Your task to perform on an android device: create a new album in the google photos Image 0: 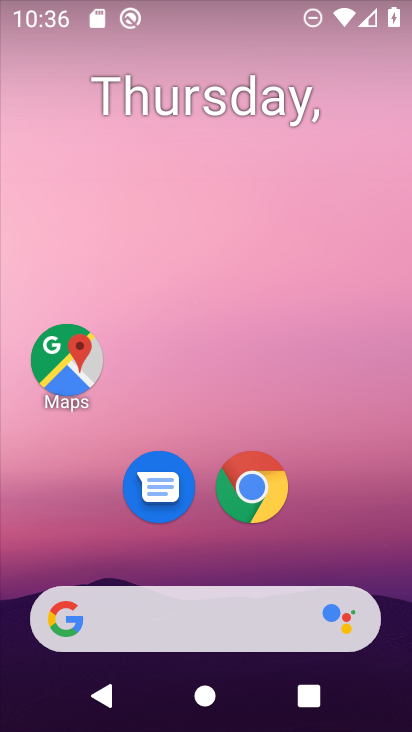
Step 0: drag from (353, 539) to (178, 84)
Your task to perform on an android device: create a new album in the google photos Image 1: 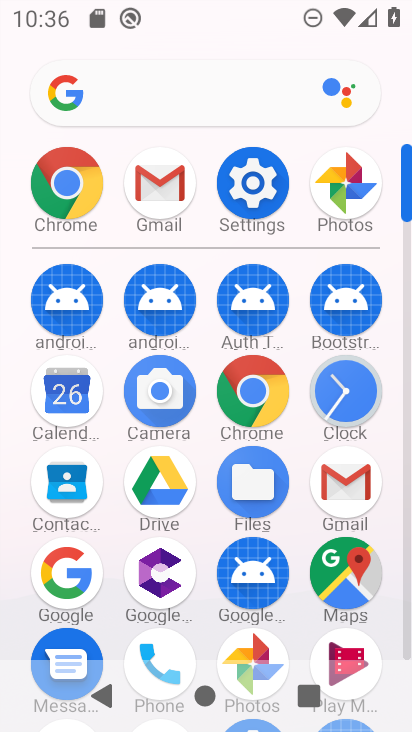
Step 1: click (335, 205)
Your task to perform on an android device: create a new album in the google photos Image 2: 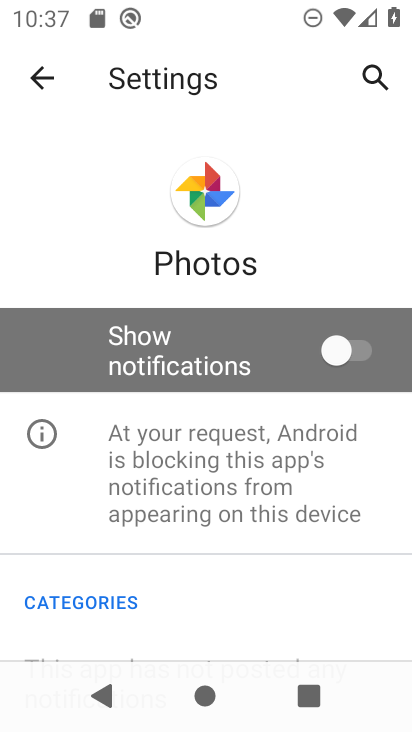
Step 2: press back button
Your task to perform on an android device: create a new album in the google photos Image 3: 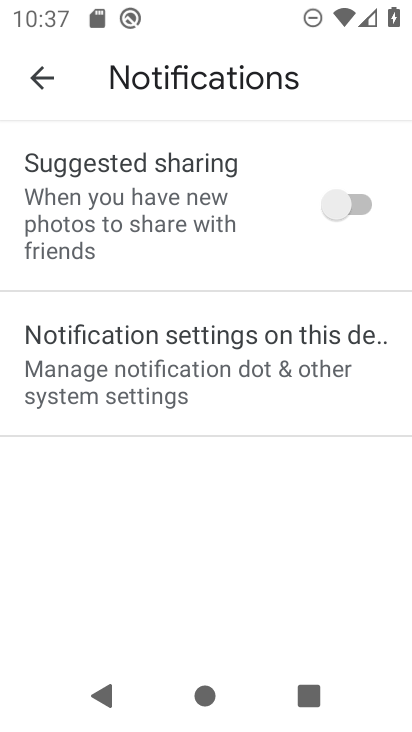
Step 3: press back button
Your task to perform on an android device: create a new album in the google photos Image 4: 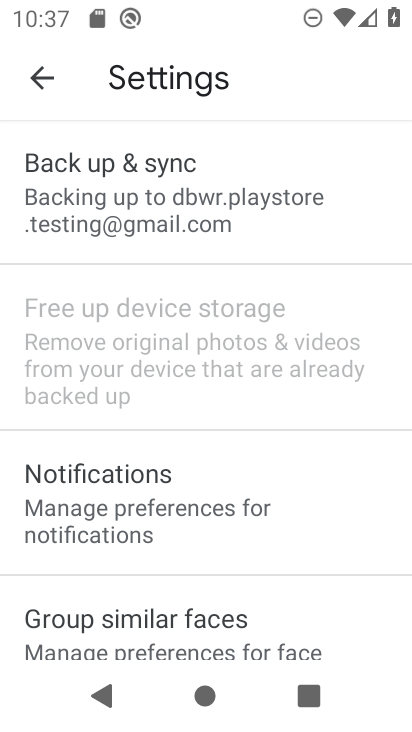
Step 4: click (40, 75)
Your task to perform on an android device: create a new album in the google photos Image 5: 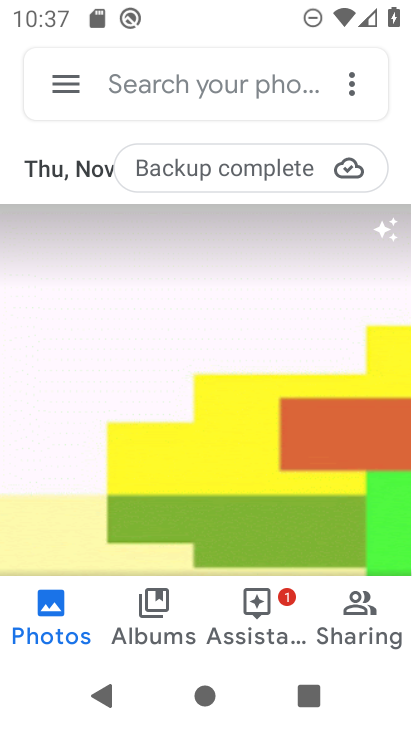
Step 5: click (175, 599)
Your task to perform on an android device: create a new album in the google photos Image 6: 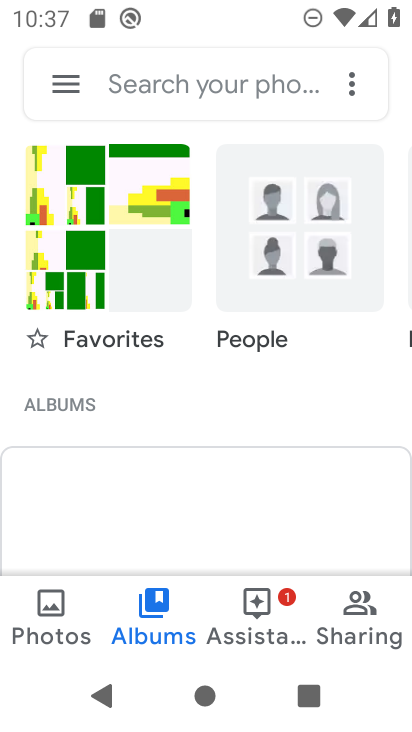
Step 6: drag from (212, 531) to (166, 255)
Your task to perform on an android device: create a new album in the google photos Image 7: 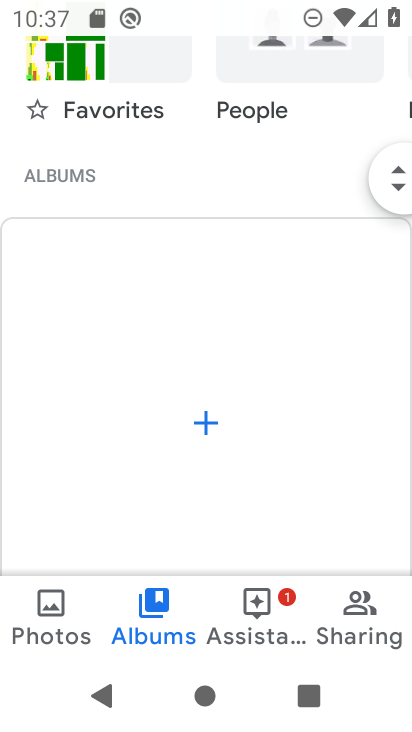
Step 7: click (206, 423)
Your task to perform on an android device: create a new album in the google photos Image 8: 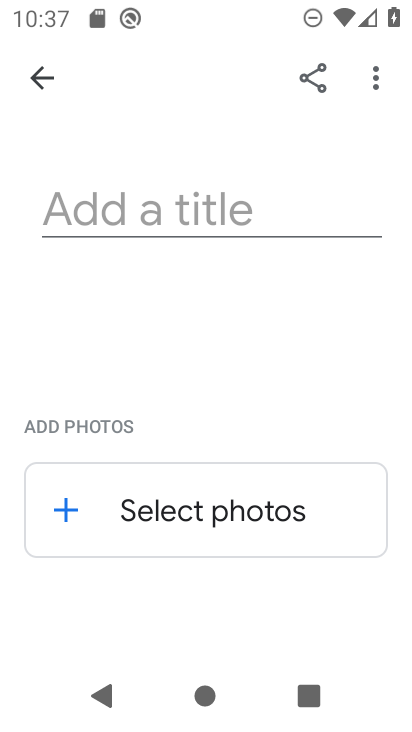
Step 8: click (199, 500)
Your task to perform on an android device: create a new album in the google photos Image 9: 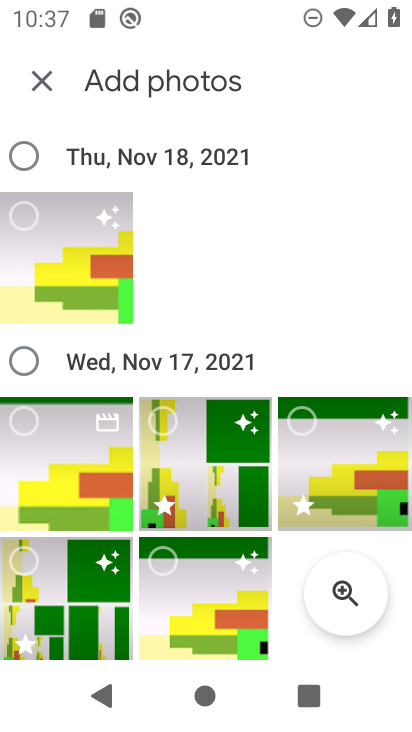
Step 9: click (39, 364)
Your task to perform on an android device: create a new album in the google photos Image 10: 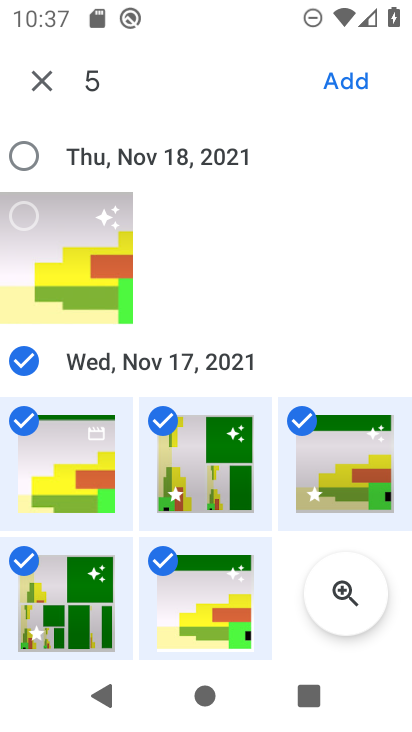
Step 10: click (347, 81)
Your task to perform on an android device: create a new album in the google photos Image 11: 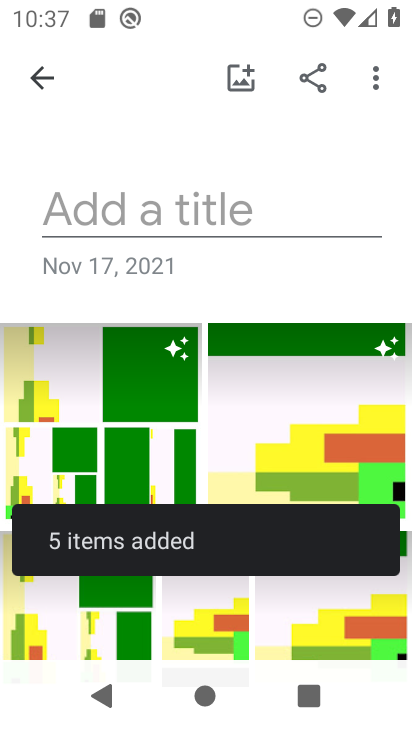
Step 11: click (228, 215)
Your task to perform on an android device: create a new album in the google photos Image 12: 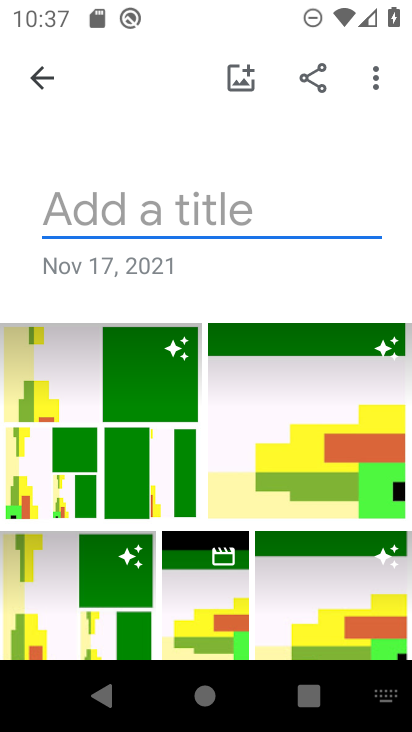
Step 12: type "gdg"
Your task to perform on an android device: create a new album in the google photos Image 13: 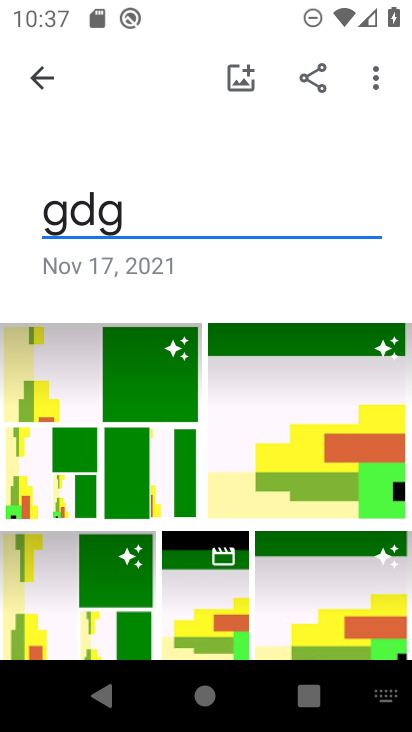
Step 13: click (380, 79)
Your task to perform on an android device: create a new album in the google photos Image 14: 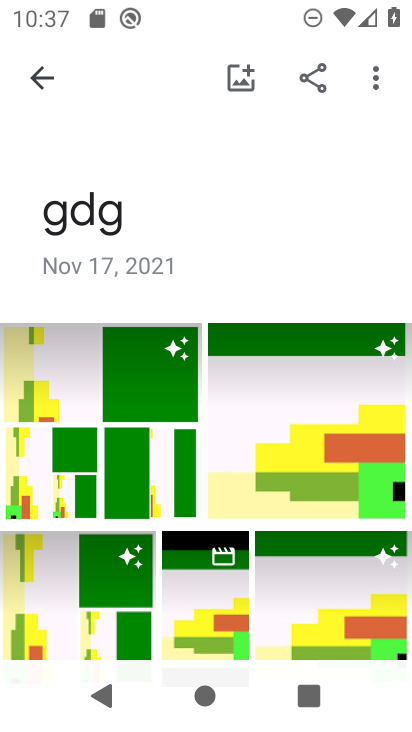
Step 14: click (372, 80)
Your task to perform on an android device: create a new album in the google photos Image 15: 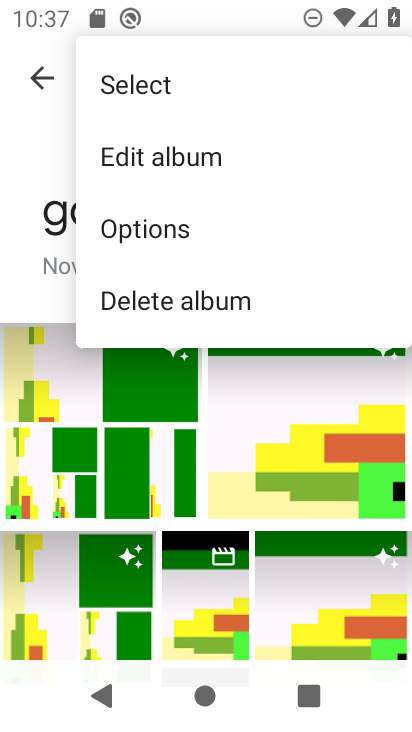
Step 15: click (31, 119)
Your task to perform on an android device: create a new album in the google photos Image 16: 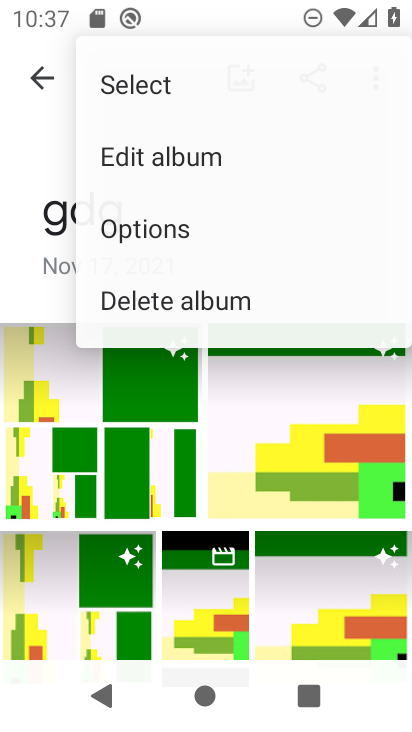
Step 16: click (31, 119)
Your task to perform on an android device: create a new album in the google photos Image 17: 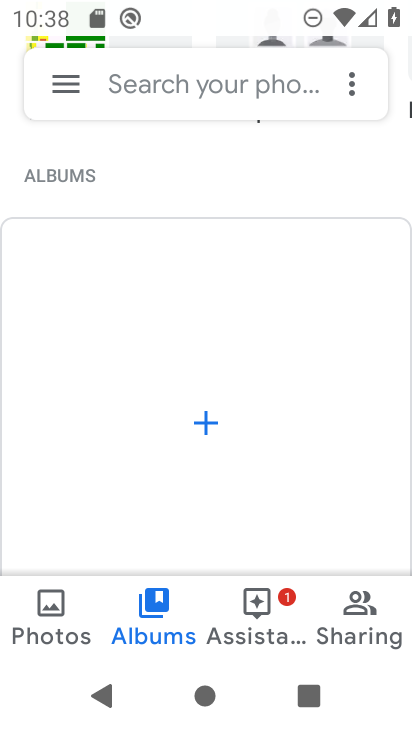
Step 17: task complete